Your task to perform on an android device: add a label to a message in the gmail app Image 0: 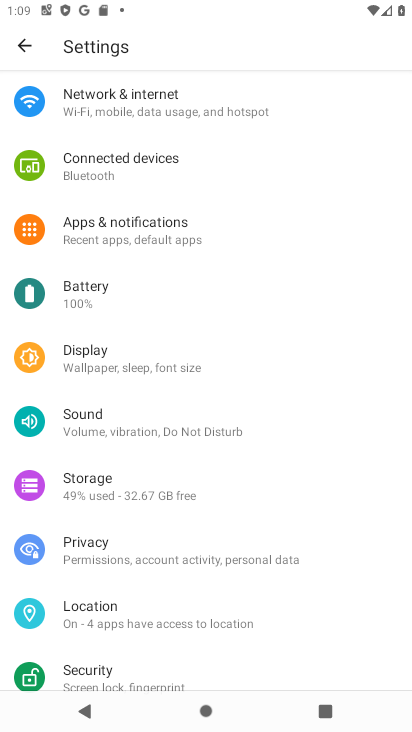
Step 0: press home button
Your task to perform on an android device: add a label to a message in the gmail app Image 1: 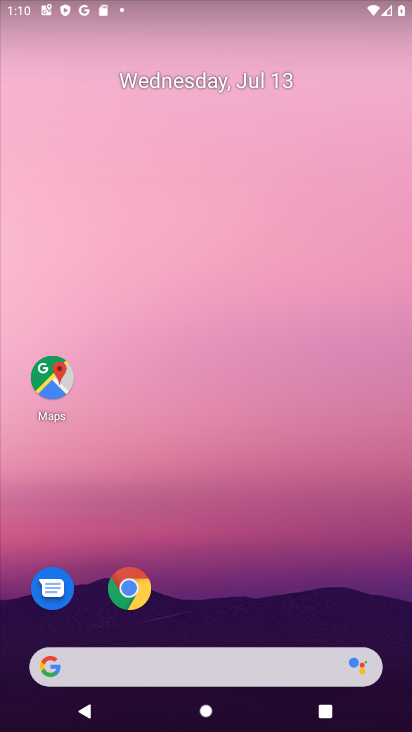
Step 1: drag from (331, 589) to (248, 153)
Your task to perform on an android device: add a label to a message in the gmail app Image 2: 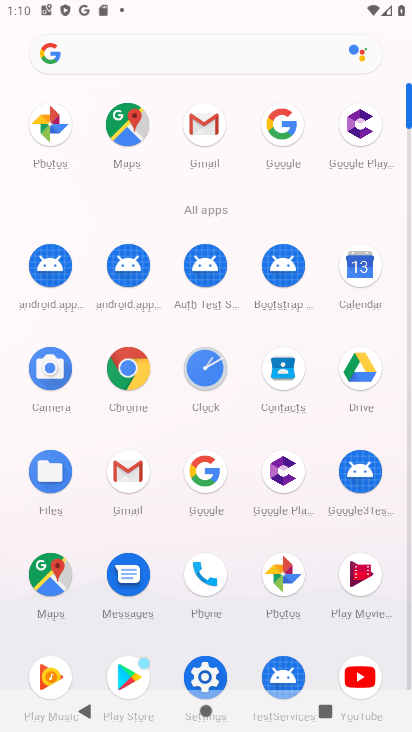
Step 2: click (136, 471)
Your task to perform on an android device: add a label to a message in the gmail app Image 3: 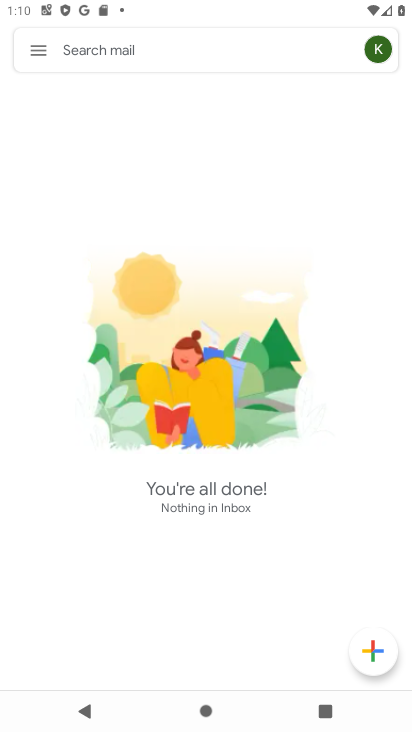
Step 3: task complete